Your task to perform on an android device: Open internet settings Image 0: 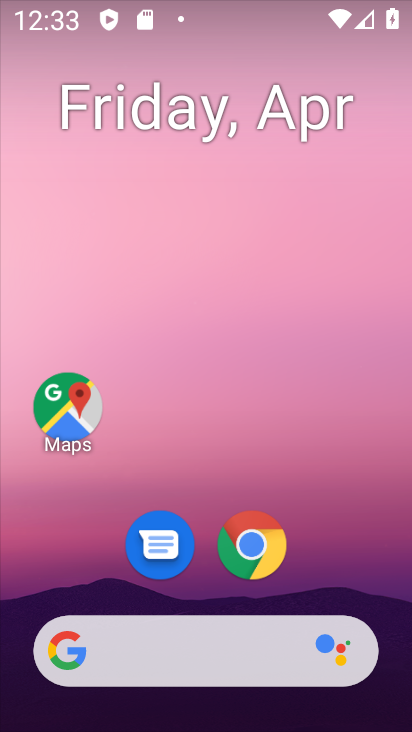
Step 0: drag from (316, 474) to (280, 61)
Your task to perform on an android device: Open internet settings Image 1: 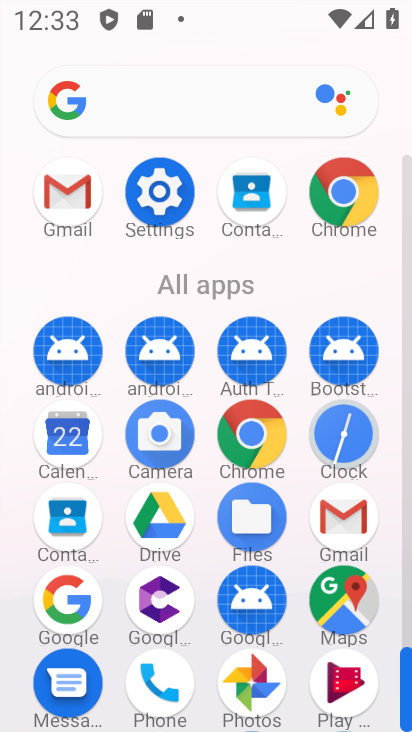
Step 1: click (160, 189)
Your task to perform on an android device: Open internet settings Image 2: 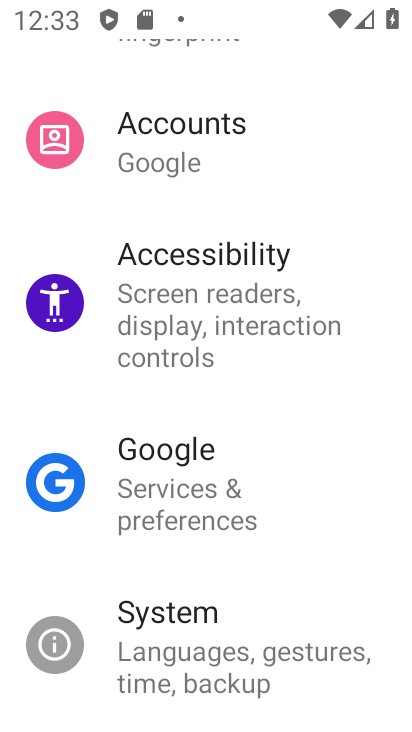
Step 2: drag from (276, 201) to (206, 696)
Your task to perform on an android device: Open internet settings Image 3: 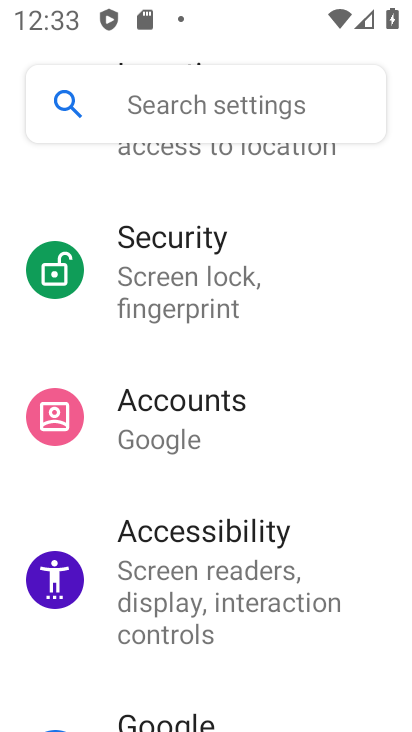
Step 3: drag from (261, 279) to (235, 662)
Your task to perform on an android device: Open internet settings Image 4: 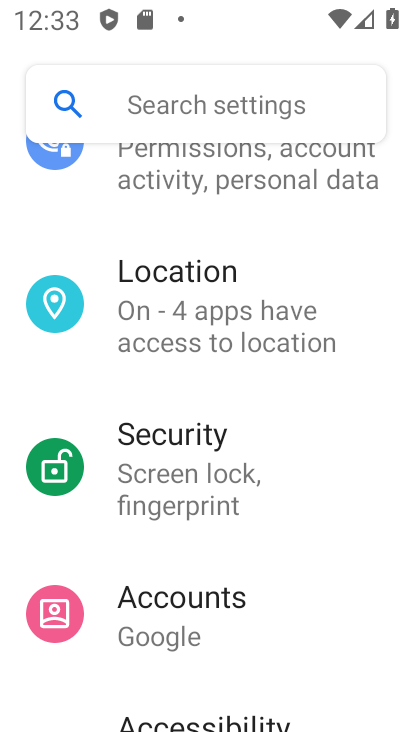
Step 4: drag from (284, 253) to (246, 567)
Your task to perform on an android device: Open internet settings Image 5: 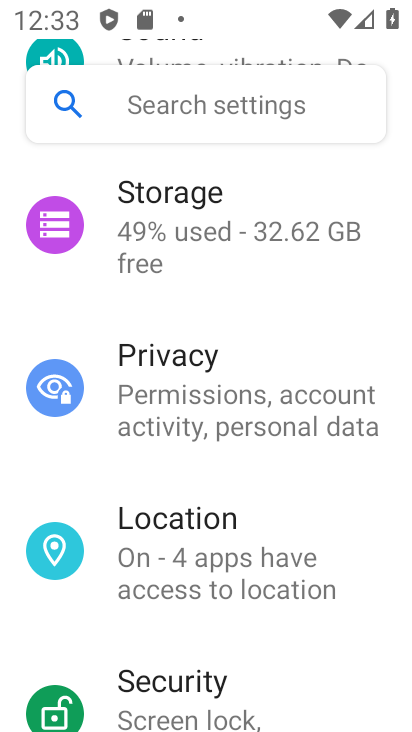
Step 5: drag from (236, 268) to (169, 670)
Your task to perform on an android device: Open internet settings Image 6: 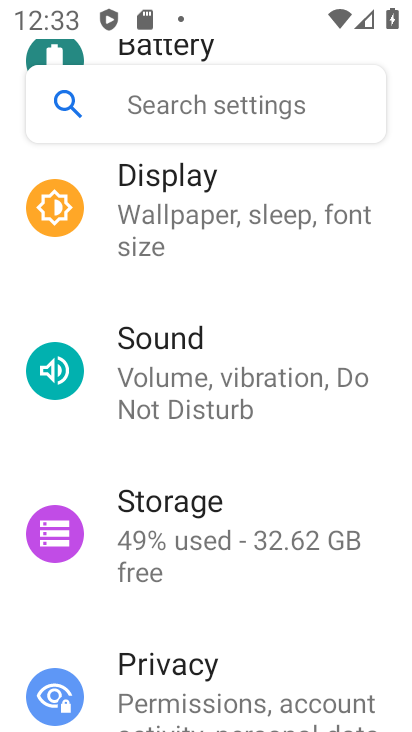
Step 6: drag from (245, 245) to (197, 676)
Your task to perform on an android device: Open internet settings Image 7: 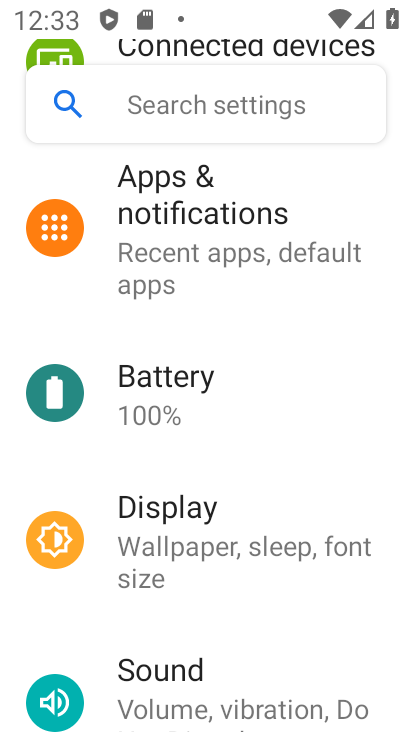
Step 7: drag from (207, 274) to (173, 660)
Your task to perform on an android device: Open internet settings Image 8: 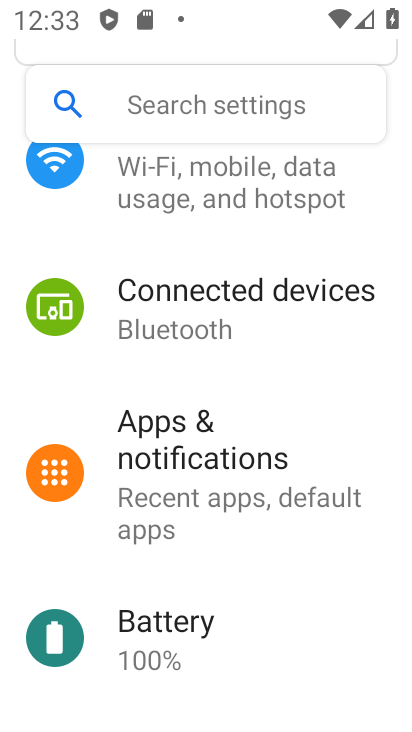
Step 8: click (260, 179)
Your task to perform on an android device: Open internet settings Image 9: 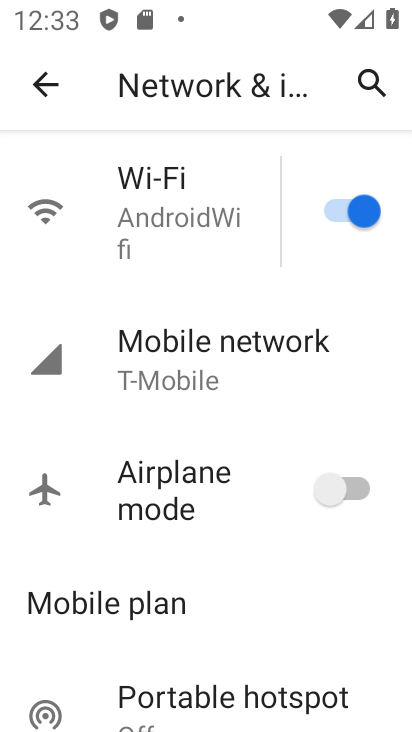
Step 9: task complete